Your task to perform on an android device: snooze an email in the gmail app Image 0: 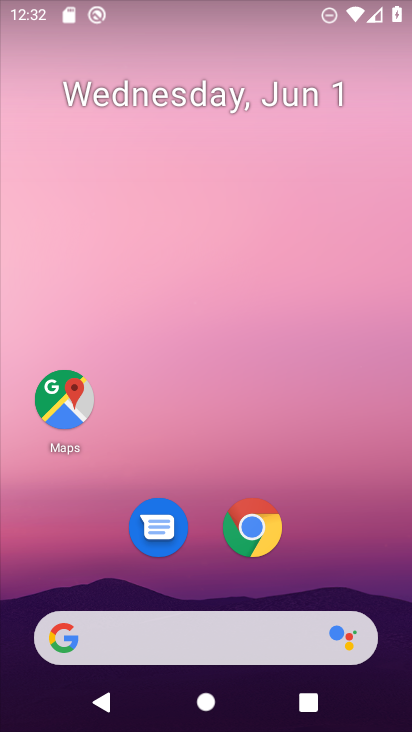
Step 0: drag from (249, 702) to (240, 2)
Your task to perform on an android device: snooze an email in the gmail app Image 1: 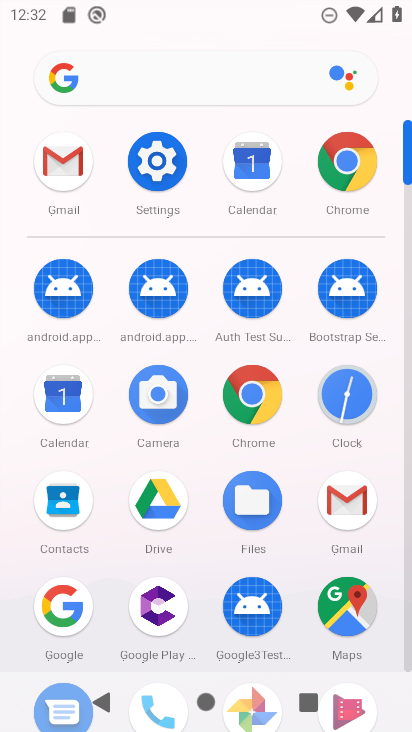
Step 1: click (87, 173)
Your task to perform on an android device: snooze an email in the gmail app Image 2: 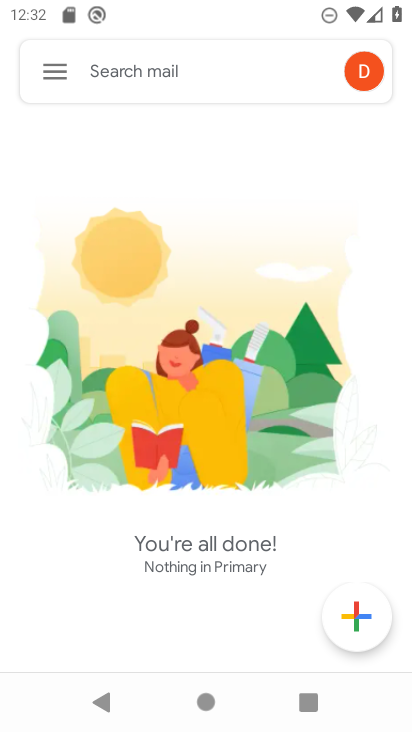
Step 2: task complete